Your task to perform on an android device: turn on the 24-hour format for clock Image 0: 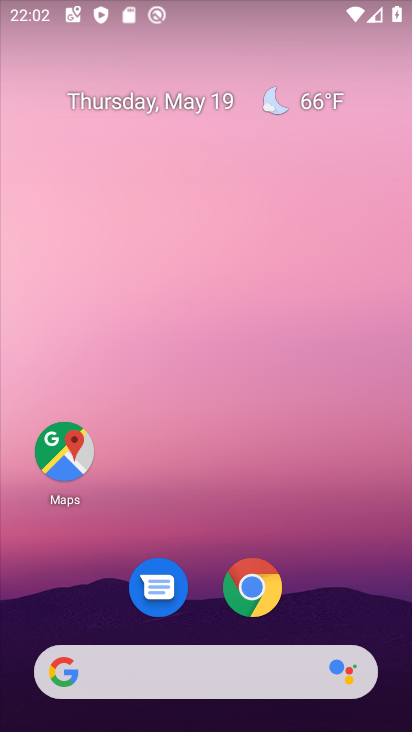
Step 0: press home button
Your task to perform on an android device: turn on the 24-hour format for clock Image 1: 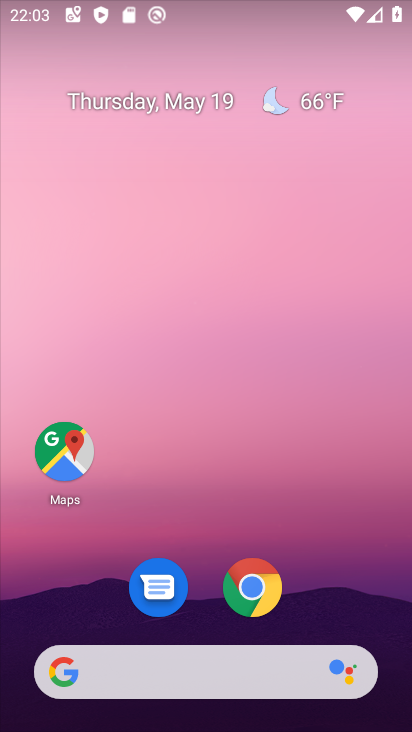
Step 1: drag from (311, 703) to (213, 254)
Your task to perform on an android device: turn on the 24-hour format for clock Image 2: 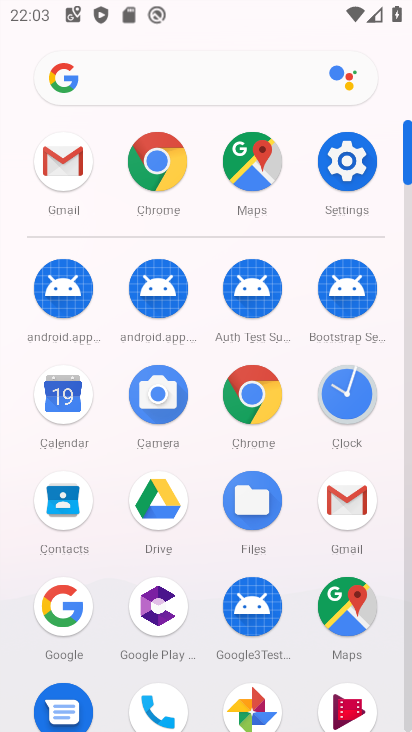
Step 2: click (330, 400)
Your task to perform on an android device: turn on the 24-hour format for clock Image 3: 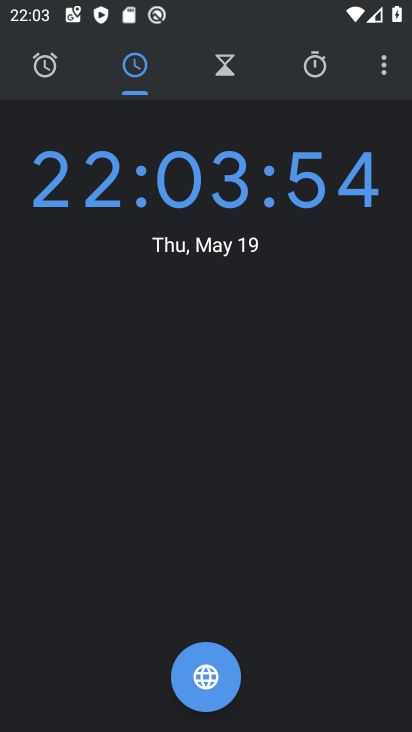
Step 3: click (377, 69)
Your task to perform on an android device: turn on the 24-hour format for clock Image 4: 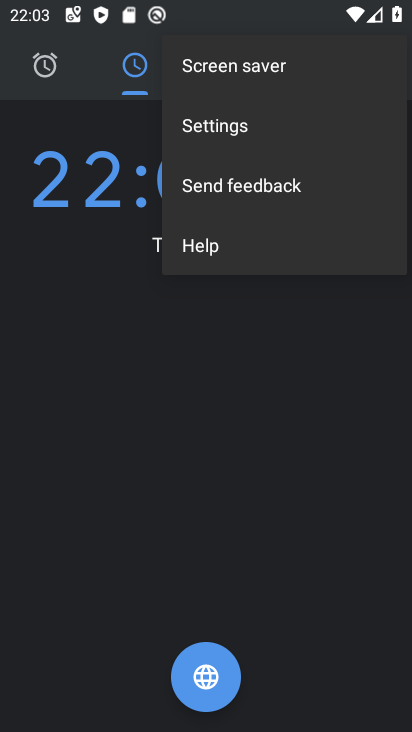
Step 4: click (226, 133)
Your task to perform on an android device: turn on the 24-hour format for clock Image 5: 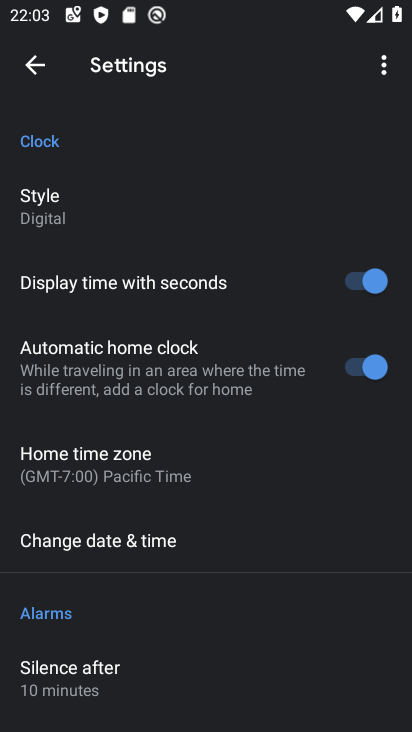
Step 5: click (169, 536)
Your task to perform on an android device: turn on the 24-hour format for clock Image 6: 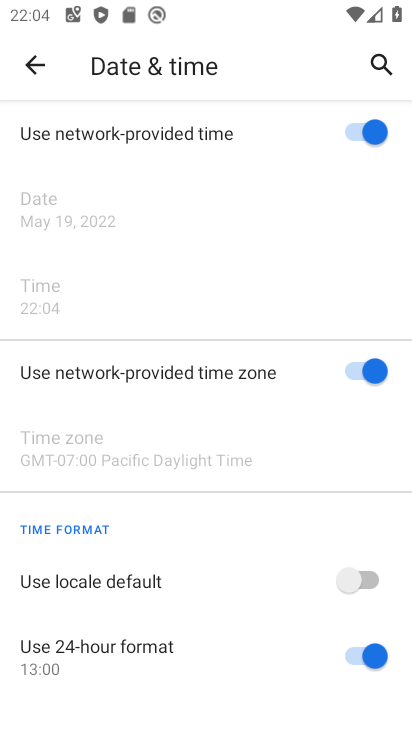
Step 6: click (367, 648)
Your task to perform on an android device: turn on the 24-hour format for clock Image 7: 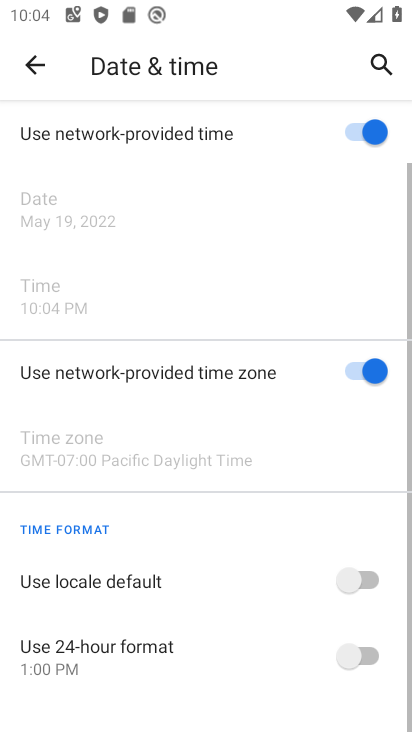
Step 7: click (367, 656)
Your task to perform on an android device: turn on the 24-hour format for clock Image 8: 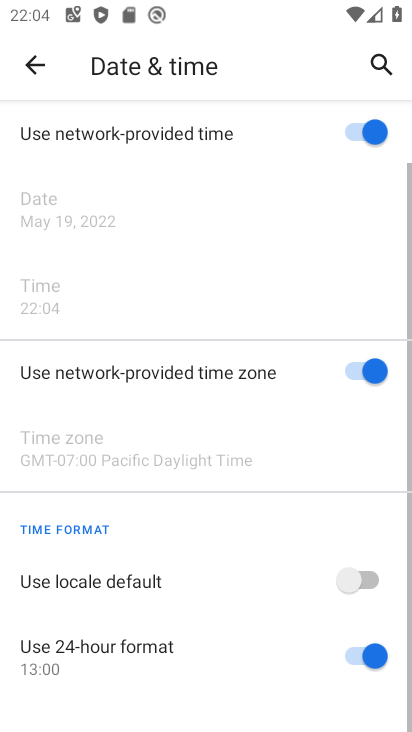
Step 8: task complete